Your task to perform on an android device: Search for sushi restaurants on Maps Image 0: 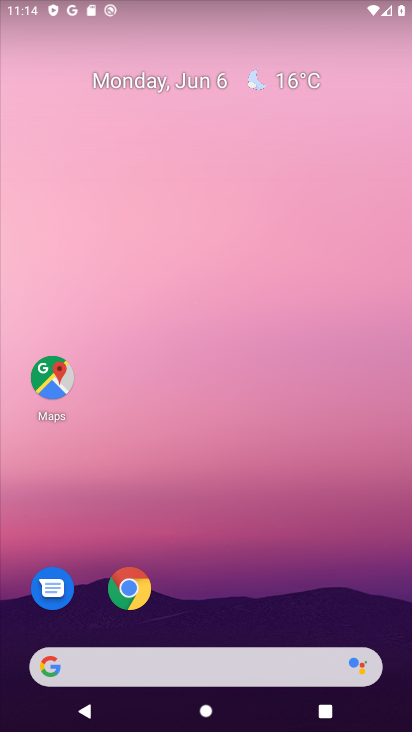
Step 0: click (54, 388)
Your task to perform on an android device: Search for sushi restaurants on Maps Image 1: 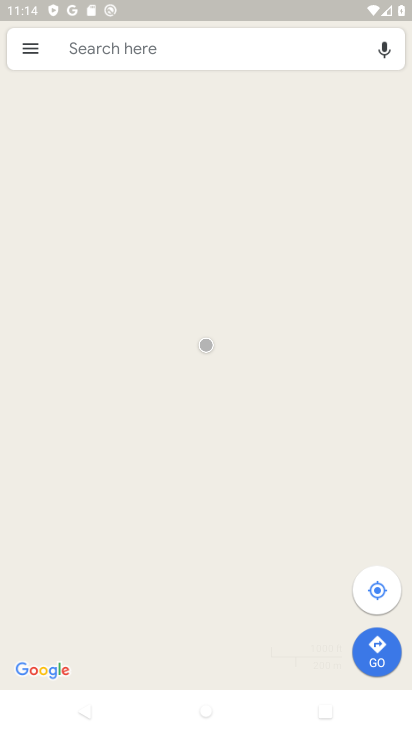
Step 1: click (97, 32)
Your task to perform on an android device: Search for sushi restaurants on Maps Image 2: 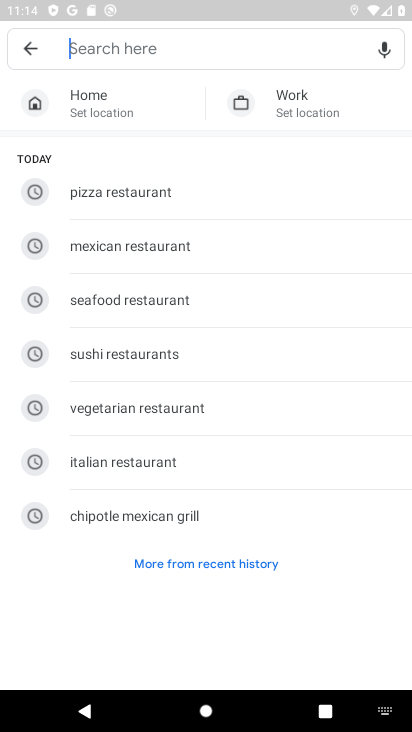
Step 2: click (100, 355)
Your task to perform on an android device: Search for sushi restaurants on Maps Image 3: 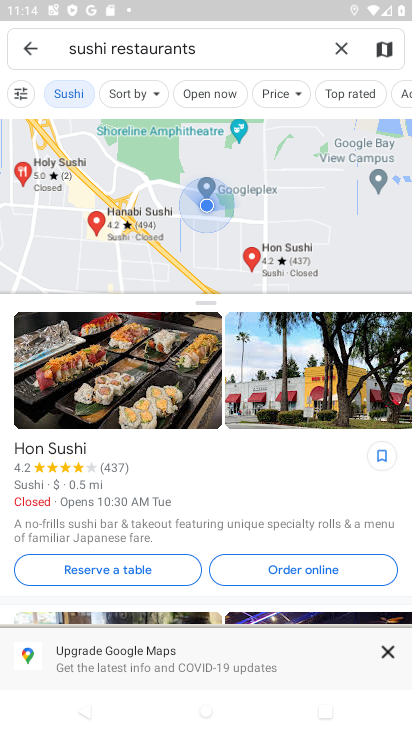
Step 3: task complete